Your task to perform on an android device: Go to calendar. Show me events next week Image 0: 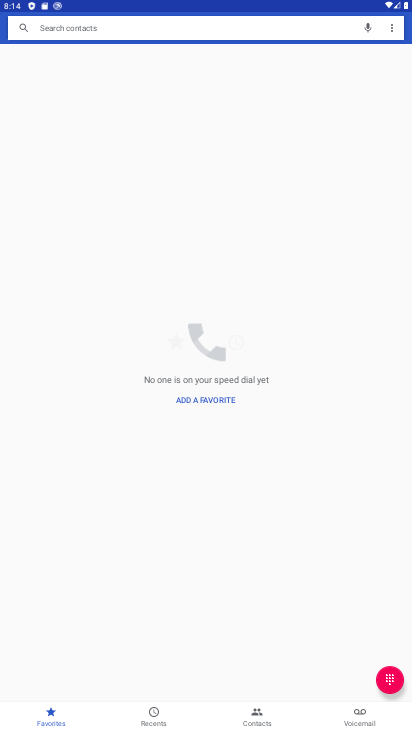
Step 0: press home button
Your task to perform on an android device: Go to calendar. Show me events next week Image 1: 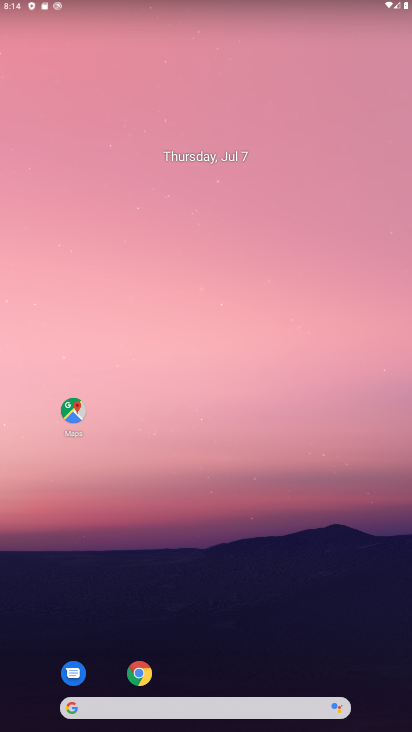
Step 1: drag from (197, 669) to (197, 26)
Your task to perform on an android device: Go to calendar. Show me events next week Image 2: 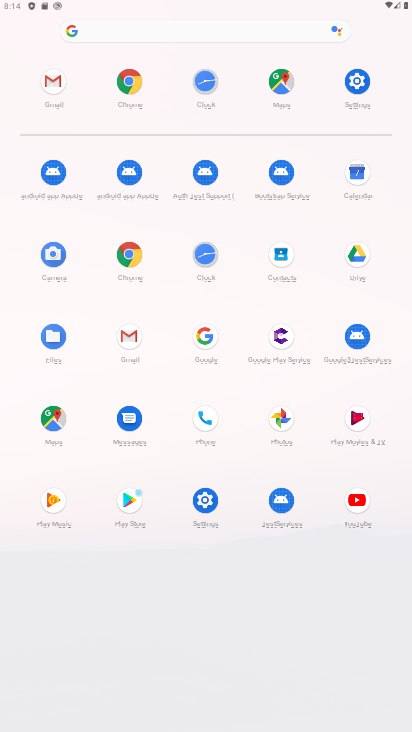
Step 2: click (359, 169)
Your task to perform on an android device: Go to calendar. Show me events next week Image 3: 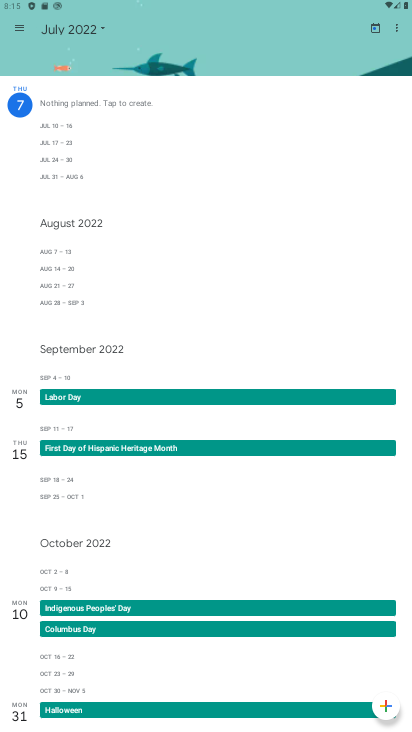
Step 3: click (23, 27)
Your task to perform on an android device: Go to calendar. Show me events next week Image 4: 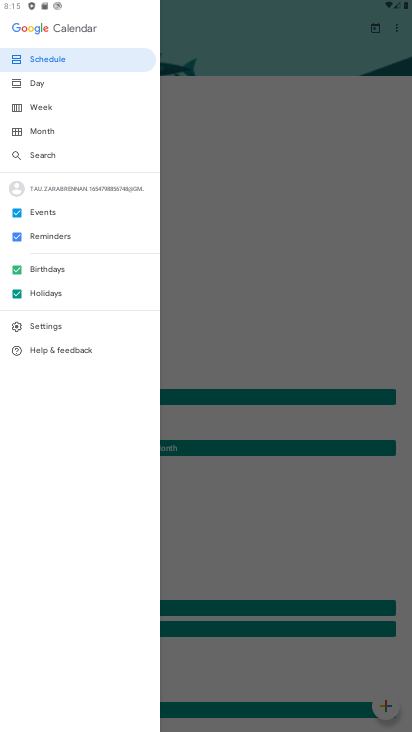
Step 4: click (42, 101)
Your task to perform on an android device: Go to calendar. Show me events next week Image 5: 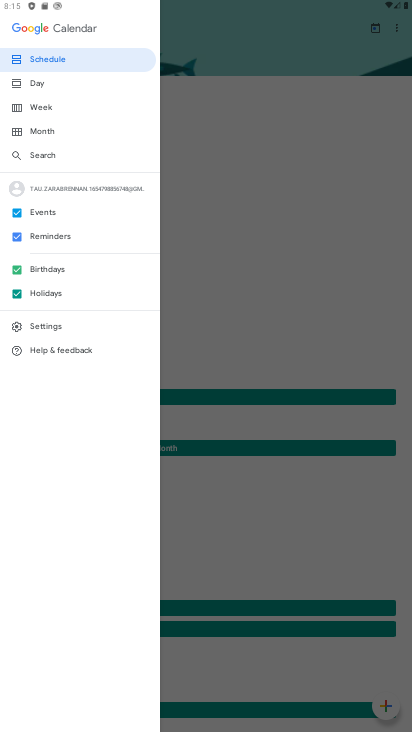
Step 5: click (42, 101)
Your task to perform on an android device: Go to calendar. Show me events next week Image 6: 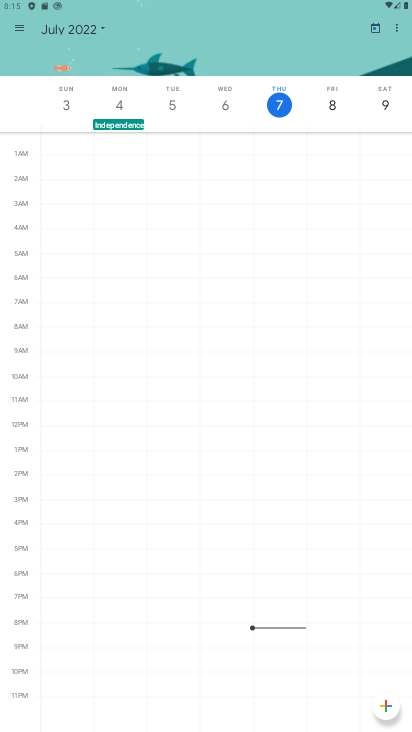
Step 6: task complete